Your task to perform on an android device: Show me popular videos on Youtube Image 0: 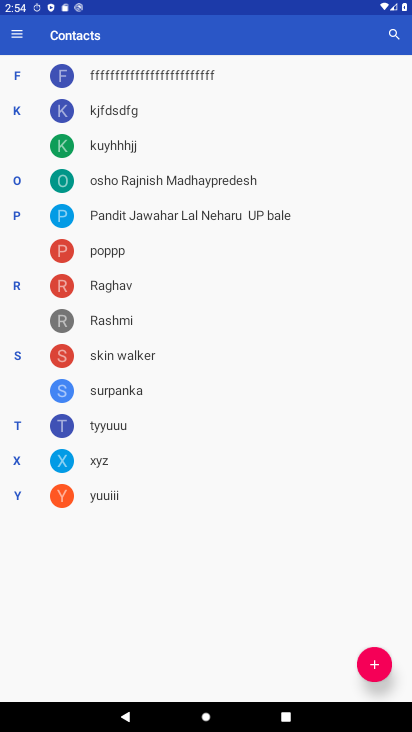
Step 0: press home button
Your task to perform on an android device: Show me popular videos on Youtube Image 1: 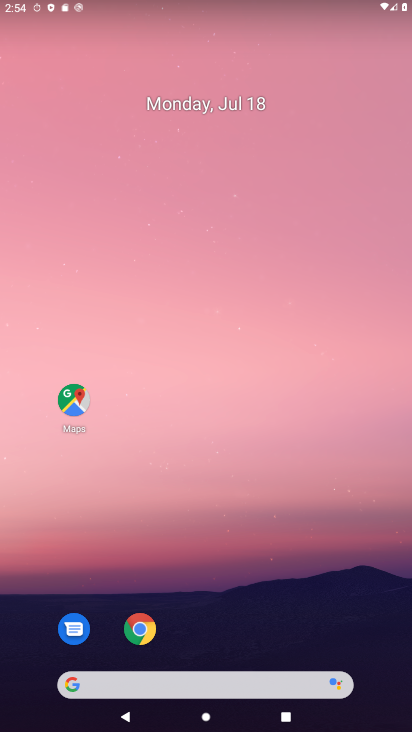
Step 1: click (218, 644)
Your task to perform on an android device: Show me popular videos on Youtube Image 2: 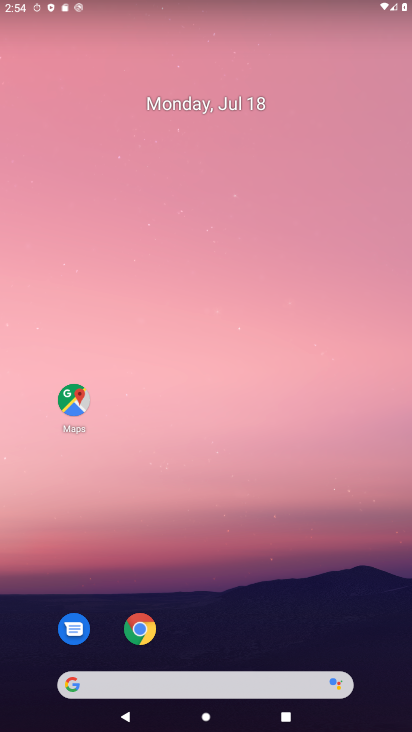
Step 2: drag from (214, 658) to (246, 171)
Your task to perform on an android device: Show me popular videos on Youtube Image 3: 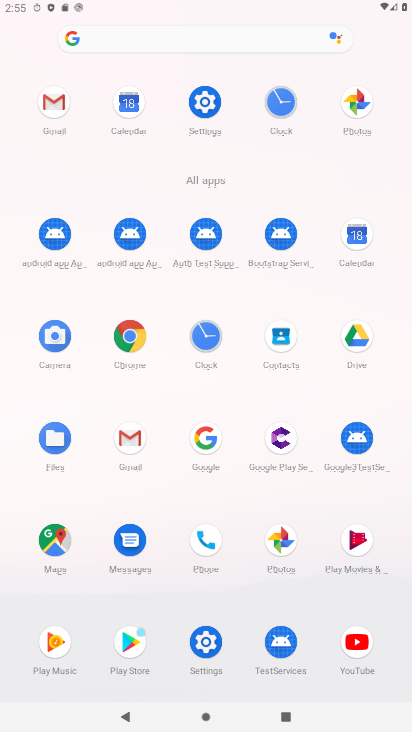
Step 3: click (351, 642)
Your task to perform on an android device: Show me popular videos on Youtube Image 4: 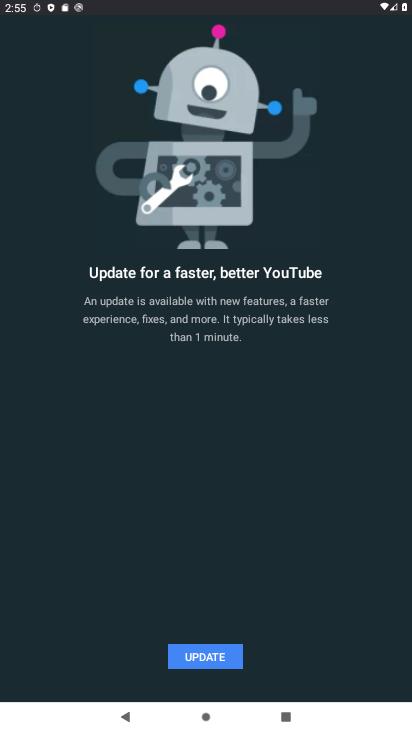
Step 4: click (214, 660)
Your task to perform on an android device: Show me popular videos on Youtube Image 5: 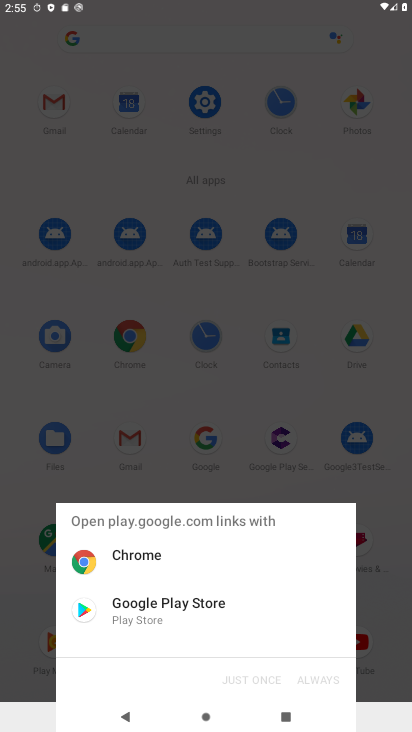
Step 5: click (155, 607)
Your task to perform on an android device: Show me popular videos on Youtube Image 6: 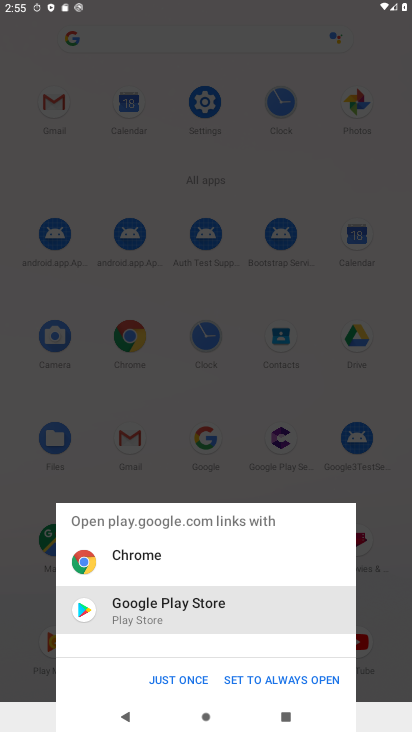
Step 6: click (181, 676)
Your task to perform on an android device: Show me popular videos on Youtube Image 7: 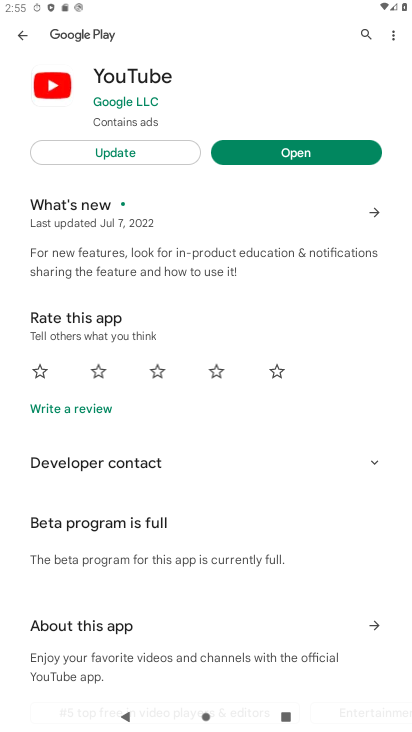
Step 7: click (140, 150)
Your task to perform on an android device: Show me popular videos on Youtube Image 8: 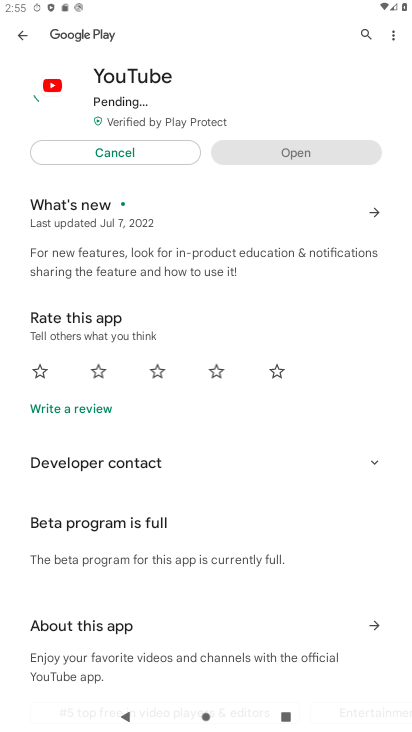
Step 8: drag from (59, 136) to (181, 215)
Your task to perform on an android device: Show me popular videos on Youtube Image 9: 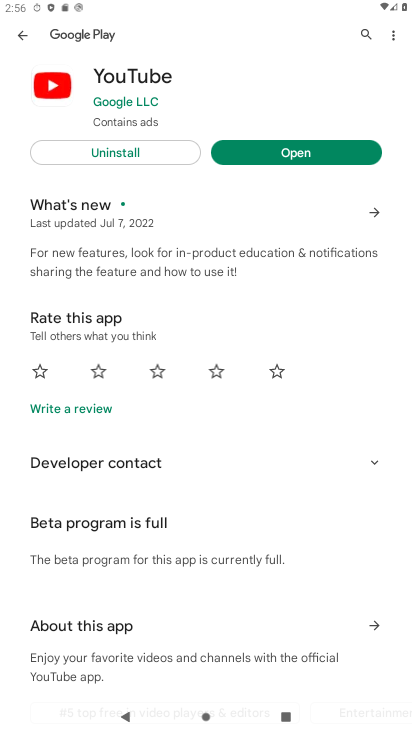
Step 9: click (303, 150)
Your task to perform on an android device: Show me popular videos on Youtube Image 10: 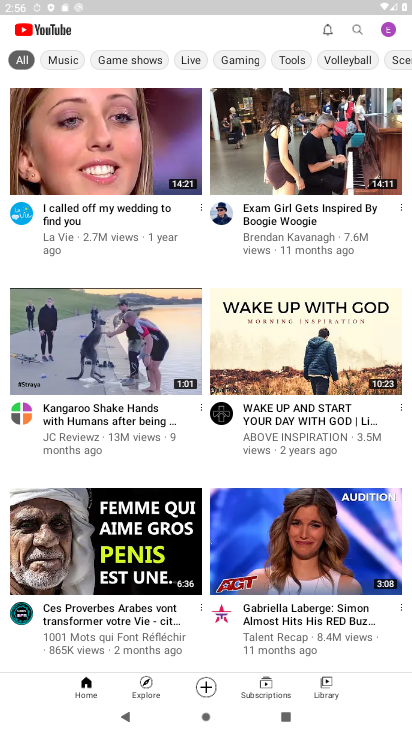
Step 10: click (147, 689)
Your task to perform on an android device: Show me popular videos on Youtube Image 11: 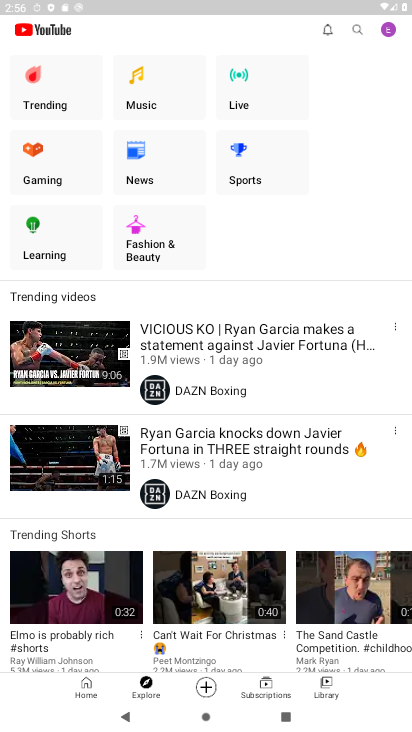
Step 11: click (45, 79)
Your task to perform on an android device: Show me popular videos on Youtube Image 12: 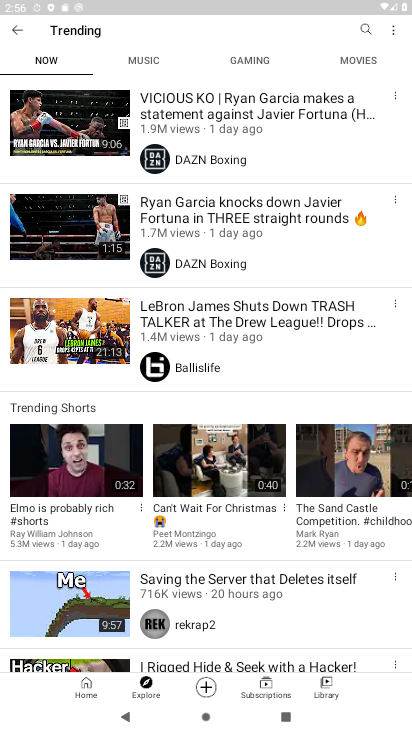
Step 12: task complete